Your task to perform on an android device: turn on wifi Image 0: 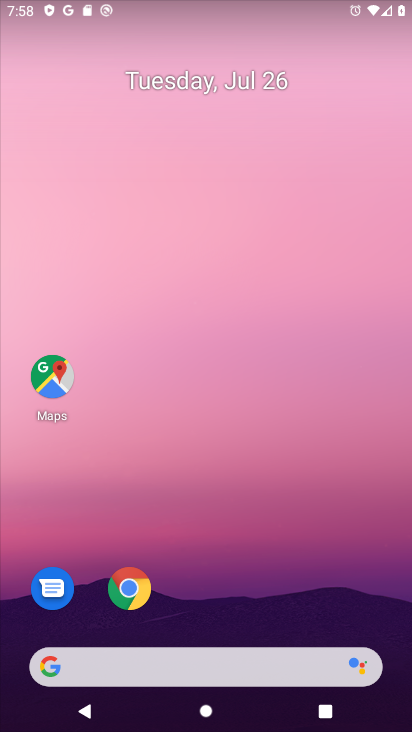
Step 0: drag from (231, 596) to (229, 93)
Your task to perform on an android device: turn on wifi Image 1: 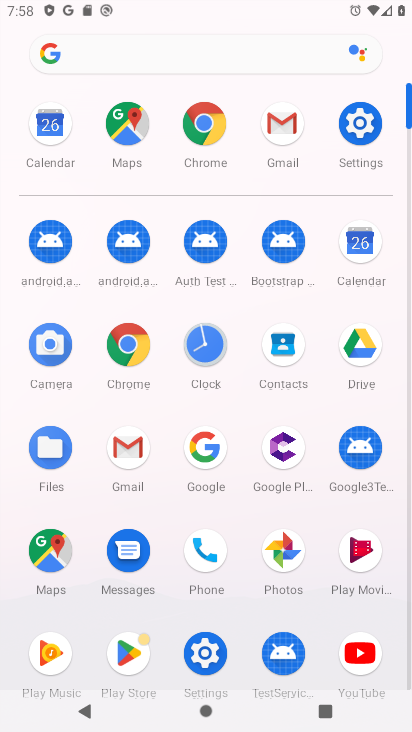
Step 1: click (367, 148)
Your task to perform on an android device: turn on wifi Image 2: 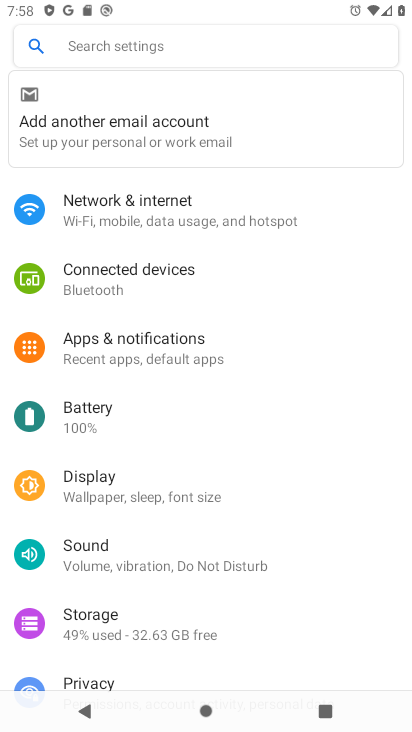
Step 2: click (167, 199)
Your task to perform on an android device: turn on wifi Image 3: 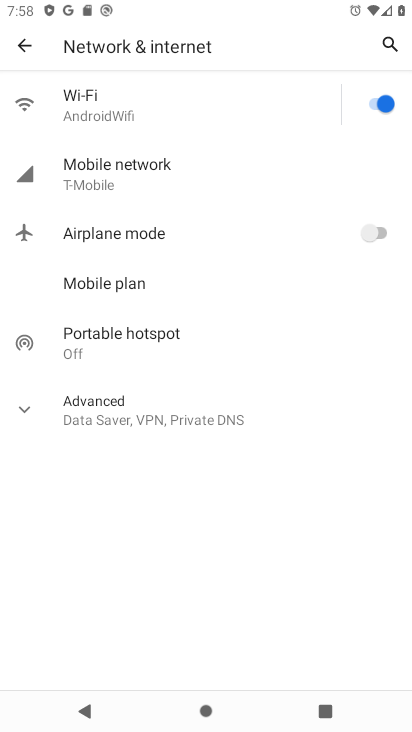
Step 3: task complete